Your task to perform on an android device: Go to CNN.com Image 0: 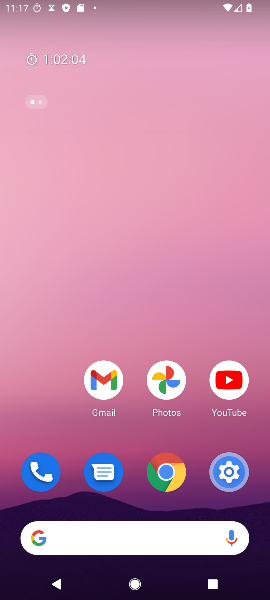
Step 0: click (181, 480)
Your task to perform on an android device: Go to CNN.com Image 1: 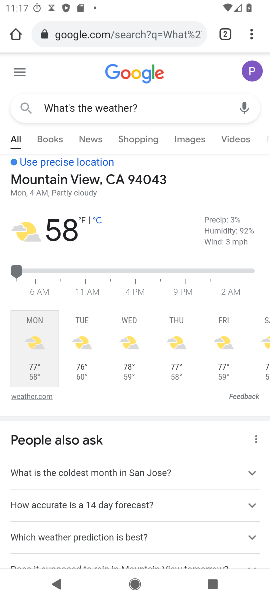
Step 1: click (155, 30)
Your task to perform on an android device: Go to CNN.com Image 2: 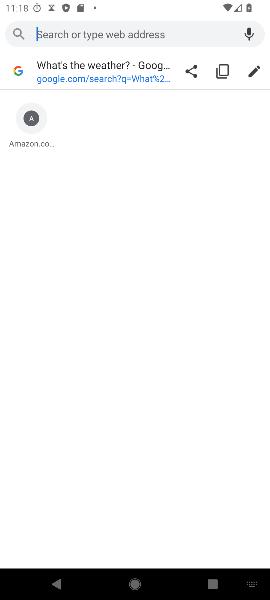
Step 2: type "CNN.com"
Your task to perform on an android device: Go to CNN.com Image 3: 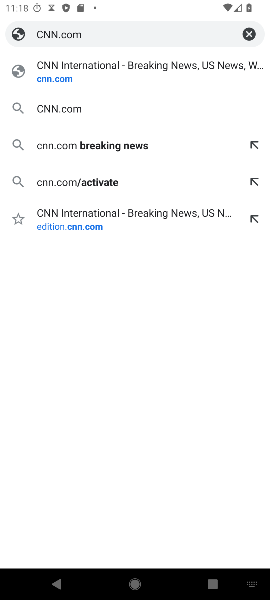
Step 3: click (115, 75)
Your task to perform on an android device: Go to CNN.com Image 4: 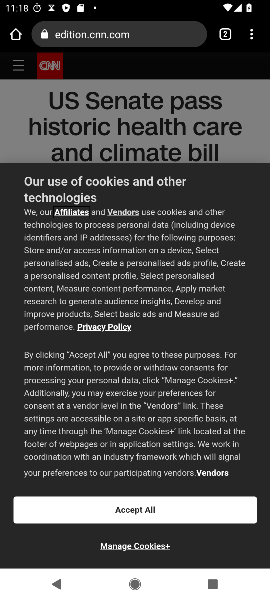
Step 4: task complete